Your task to perform on an android device: Open Amazon Image 0: 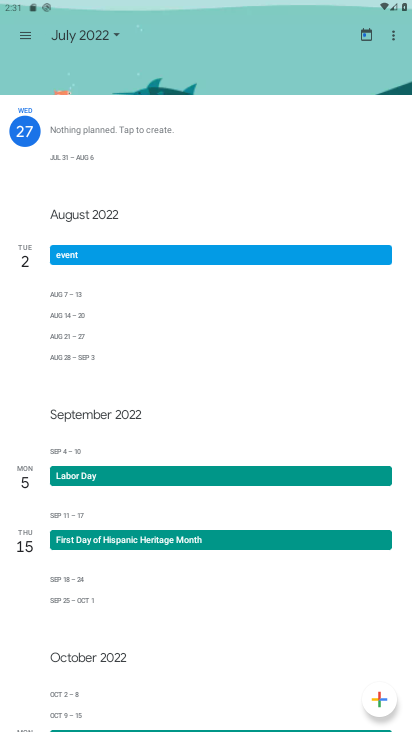
Step 0: press home button
Your task to perform on an android device: Open Amazon Image 1: 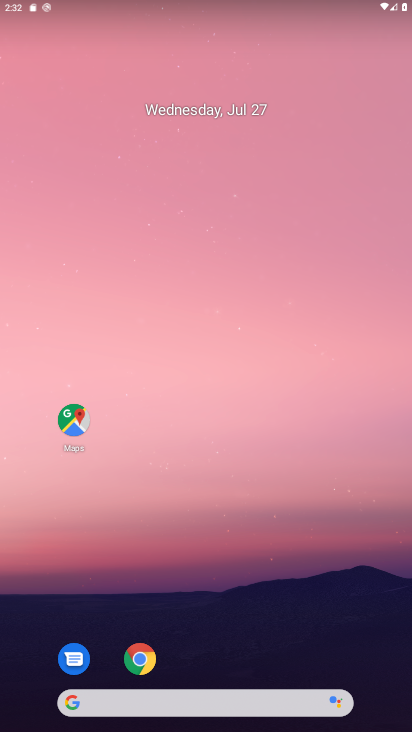
Step 1: drag from (226, 649) to (246, 119)
Your task to perform on an android device: Open Amazon Image 2: 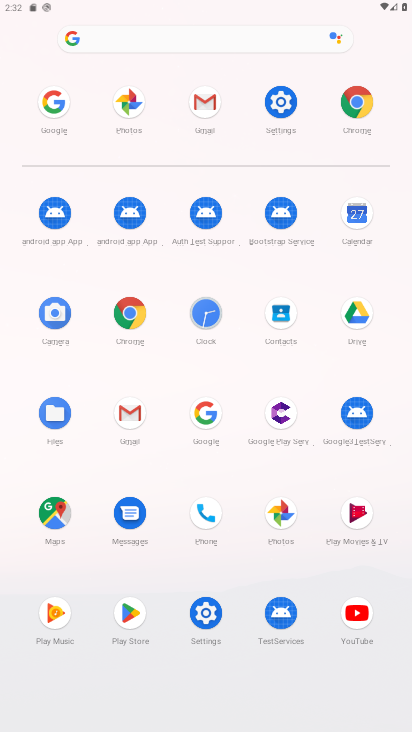
Step 2: click (358, 111)
Your task to perform on an android device: Open Amazon Image 3: 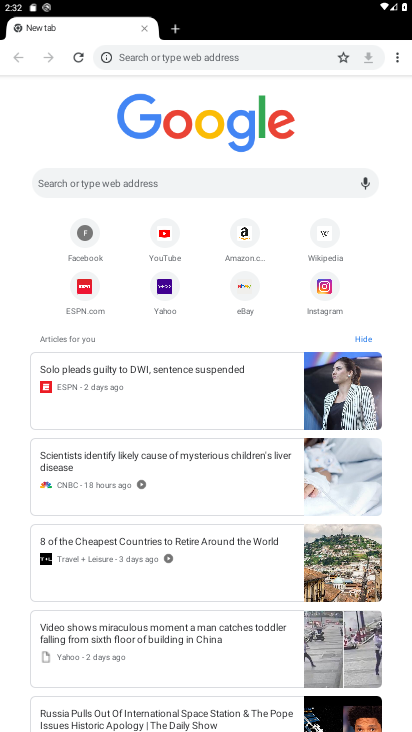
Step 3: click (249, 234)
Your task to perform on an android device: Open Amazon Image 4: 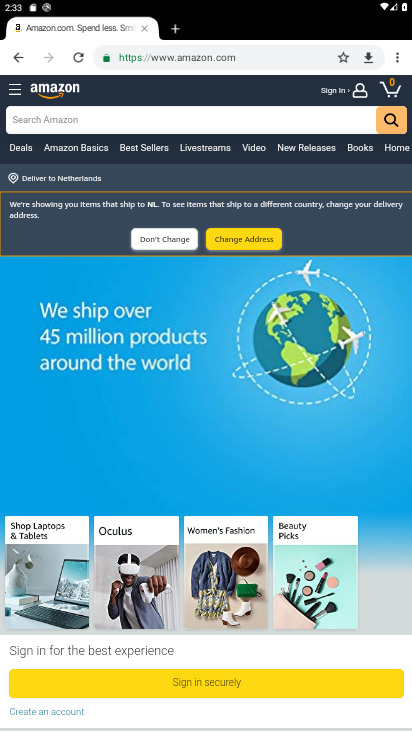
Step 4: task complete